Your task to perform on an android device: toggle priority inbox in the gmail app Image 0: 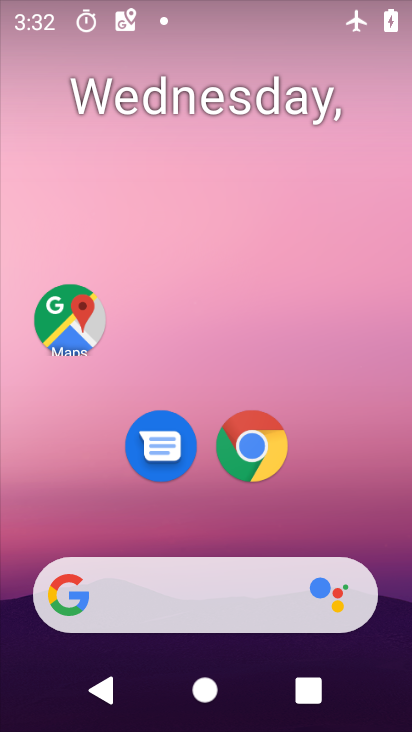
Step 0: drag from (229, 509) to (259, 86)
Your task to perform on an android device: toggle priority inbox in the gmail app Image 1: 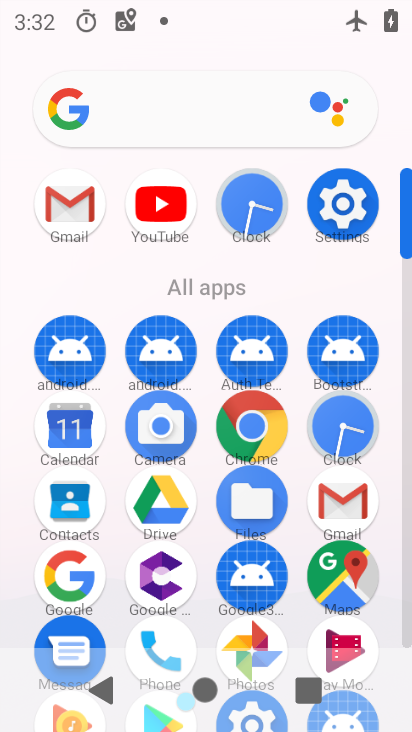
Step 1: click (63, 204)
Your task to perform on an android device: toggle priority inbox in the gmail app Image 2: 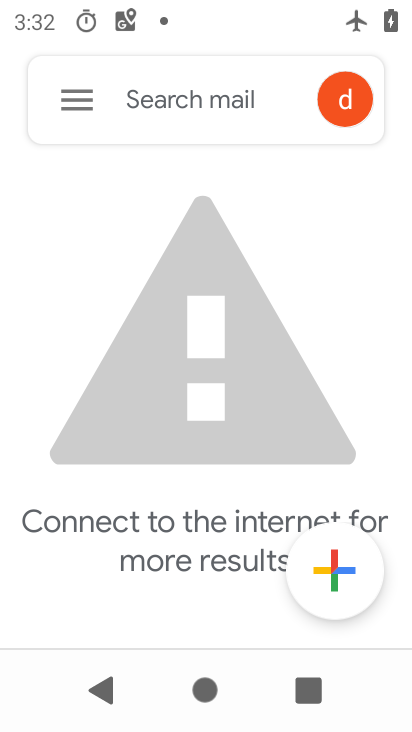
Step 2: click (79, 102)
Your task to perform on an android device: toggle priority inbox in the gmail app Image 3: 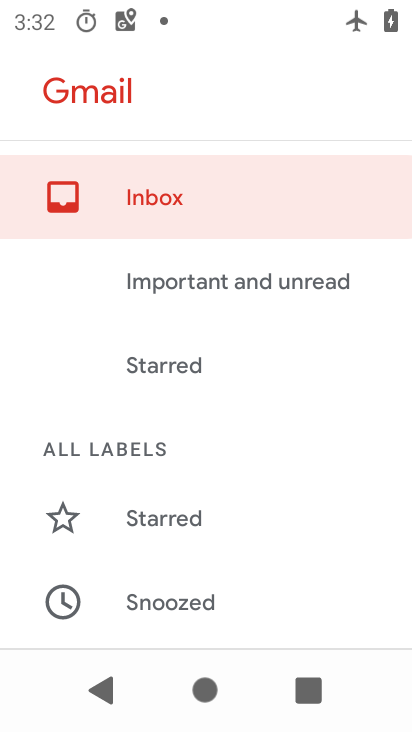
Step 3: drag from (228, 514) to (245, 19)
Your task to perform on an android device: toggle priority inbox in the gmail app Image 4: 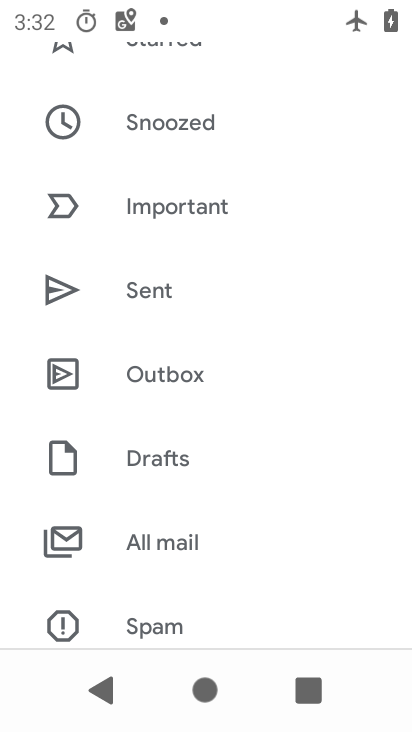
Step 4: drag from (230, 511) to (253, 83)
Your task to perform on an android device: toggle priority inbox in the gmail app Image 5: 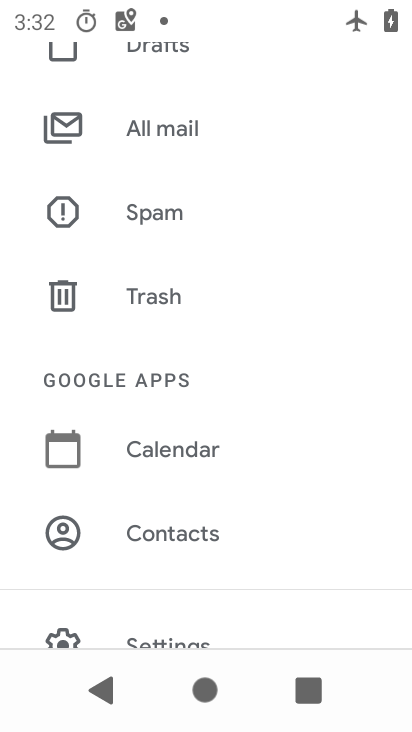
Step 5: drag from (239, 556) to (245, 205)
Your task to perform on an android device: toggle priority inbox in the gmail app Image 6: 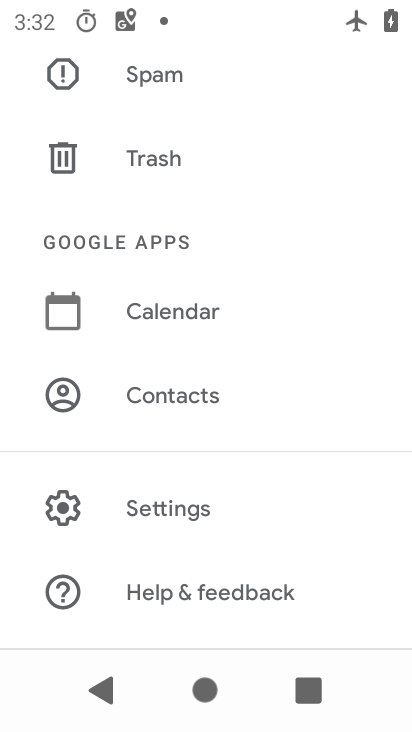
Step 6: click (163, 498)
Your task to perform on an android device: toggle priority inbox in the gmail app Image 7: 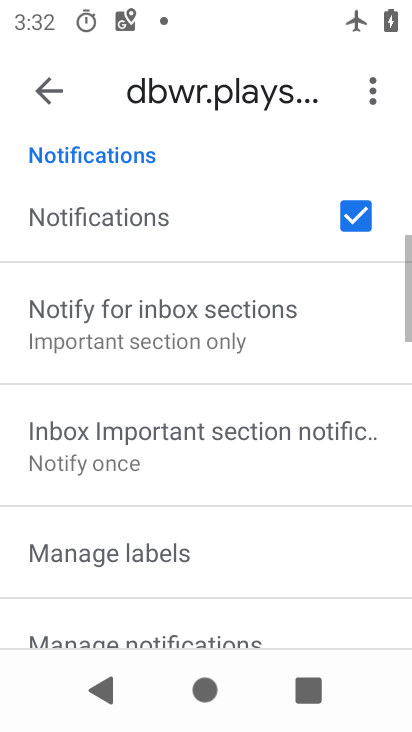
Step 7: drag from (234, 556) to (223, 182)
Your task to perform on an android device: toggle priority inbox in the gmail app Image 8: 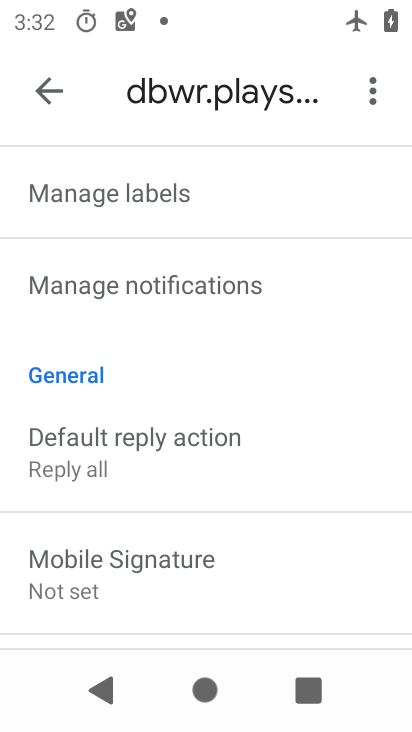
Step 8: drag from (262, 551) to (291, 692)
Your task to perform on an android device: toggle priority inbox in the gmail app Image 9: 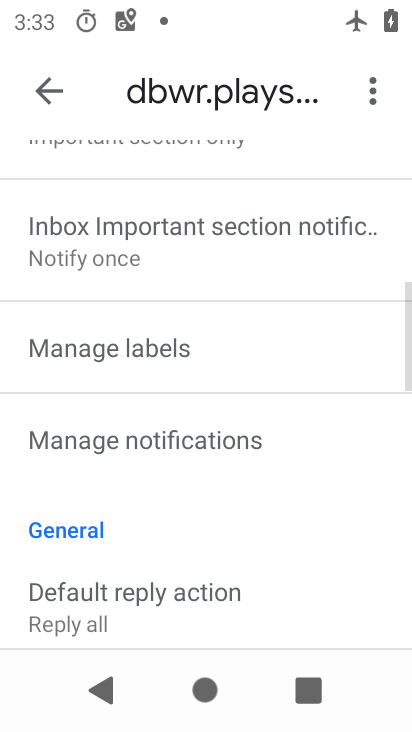
Step 9: drag from (162, 280) to (209, 694)
Your task to perform on an android device: toggle priority inbox in the gmail app Image 10: 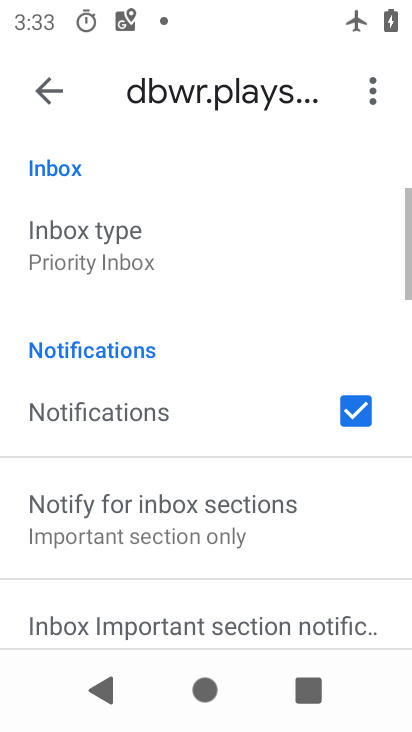
Step 10: drag from (105, 264) to (135, 363)
Your task to perform on an android device: toggle priority inbox in the gmail app Image 11: 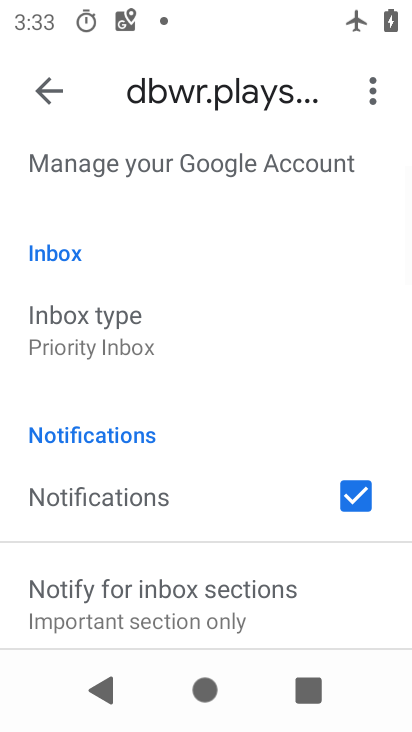
Step 11: click (101, 345)
Your task to perform on an android device: toggle priority inbox in the gmail app Image 12: 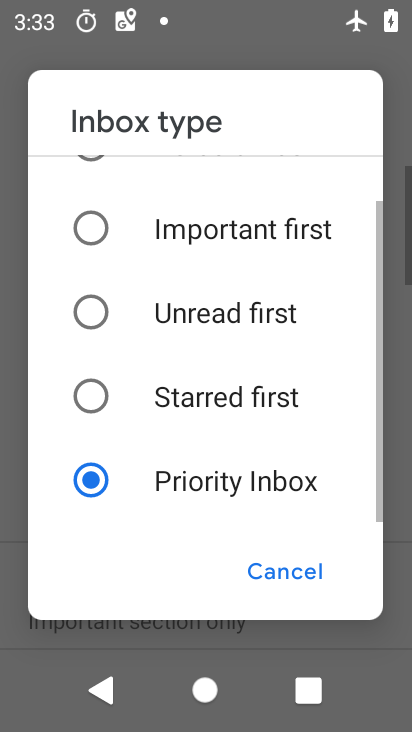
Step 12: click (87, 224)
Your task to perform on an android device: toggle priority inbox in the gmail app Image 13: 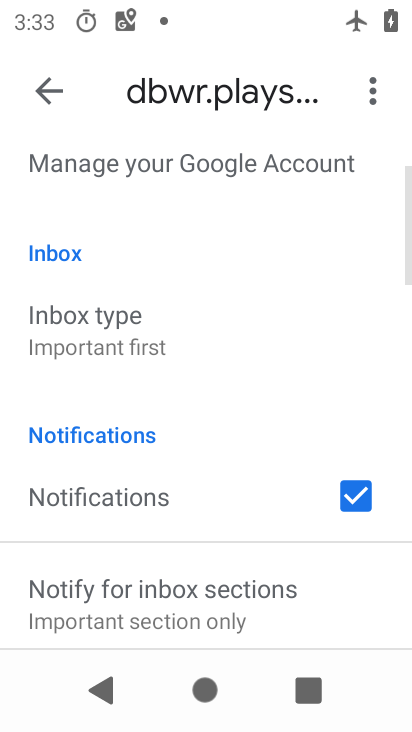
Step 13: task complete